Your task to perform on an android device: Show me the alarms in the clock app Image 0: 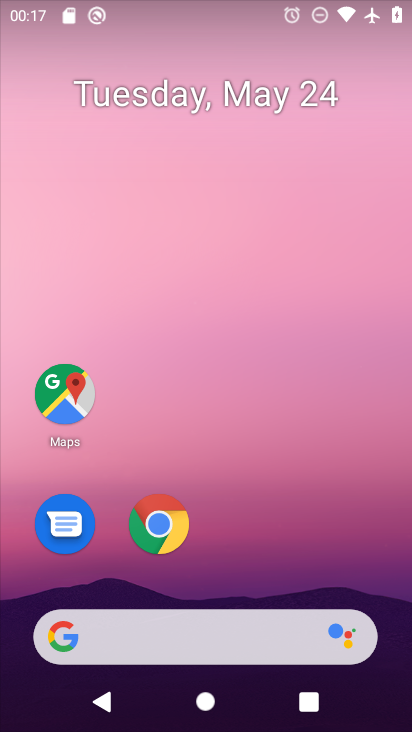
Step 0: drag from (231, 577) to (234, 178)
Your task to perform on an android device: Show me the alarms in the clock app Image 1: 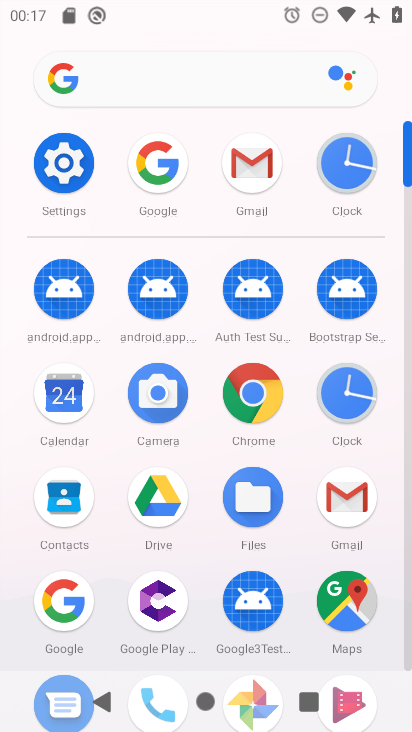
Step 1: click (370, 393)
Your task to perform on an android device: Show me the alarms in the clock app Image 2: 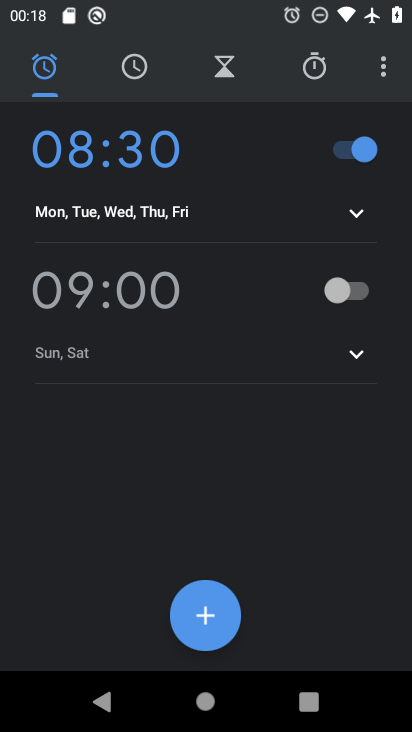
Step 2: task complete